Your task to perform on an android device: Search for seafood restaurants on Google Maps Image 0: 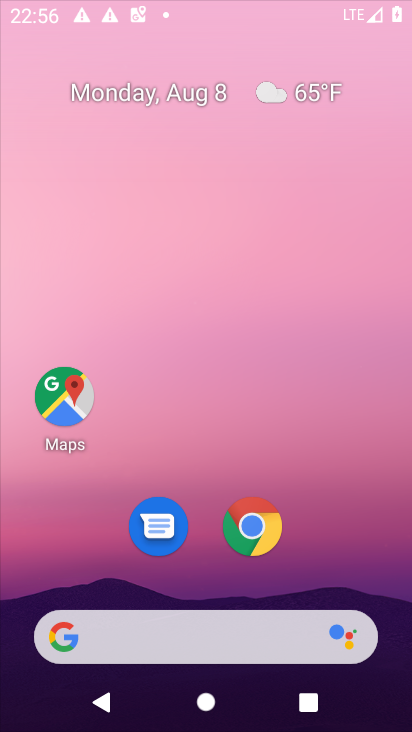
Step 0: click (253, 517)
Your task to perform on an android device: Search for seafood restaurants on Google Maps Image 1: 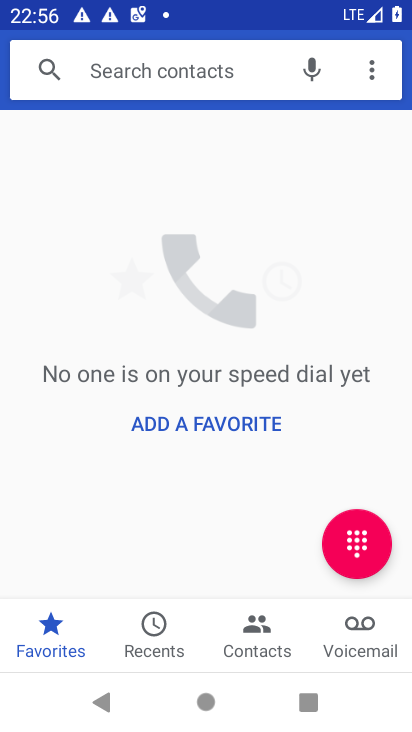
Step 1: press home button
Your task to perform on an android device: Search for seafood restaurants on Google Maps Image 2: 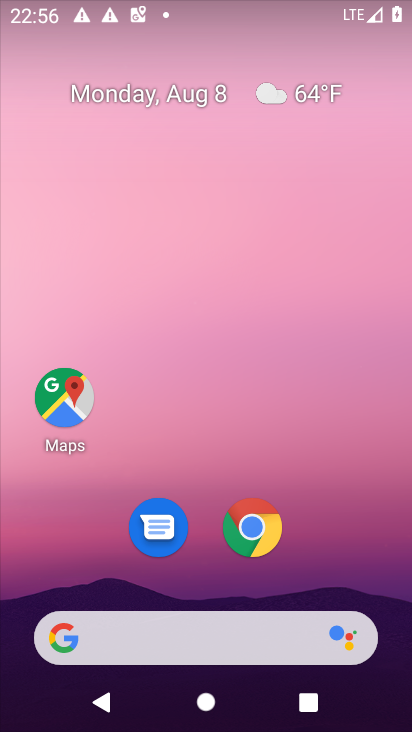
Step 2: click (64, 408)
Your task to perform on an android device: Search for seafood restaurants on Google Maps Image 3: 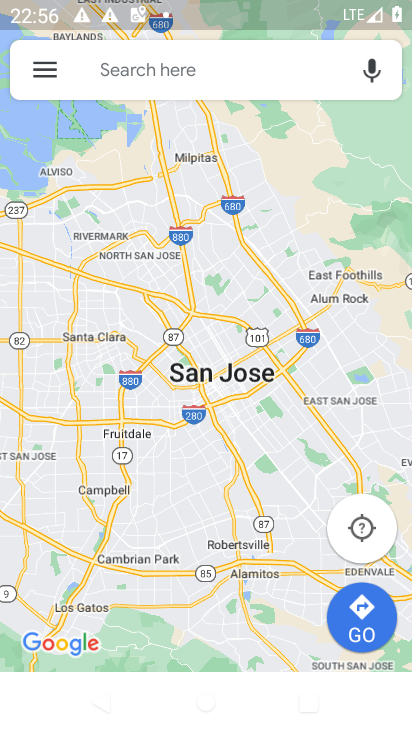
Step 3: click (190, 74)
Your task to perform on an android device: Search for seafood restaurants on Google Maps Image 4: 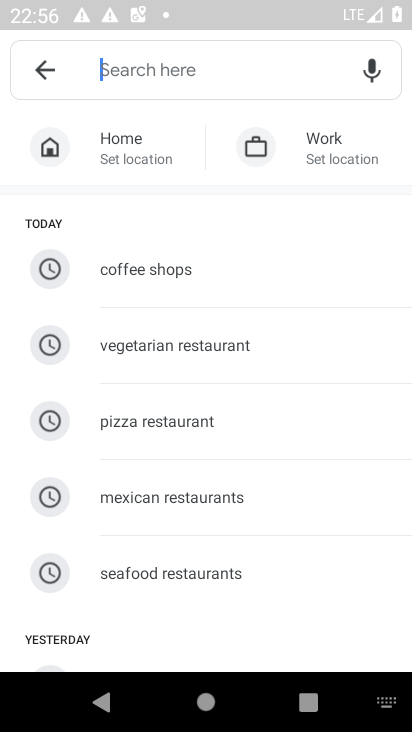
Step 4: type "seafood restaurants"
Your task to perform on an android device: Search for seafood restaurants on Google Maps Image 5: 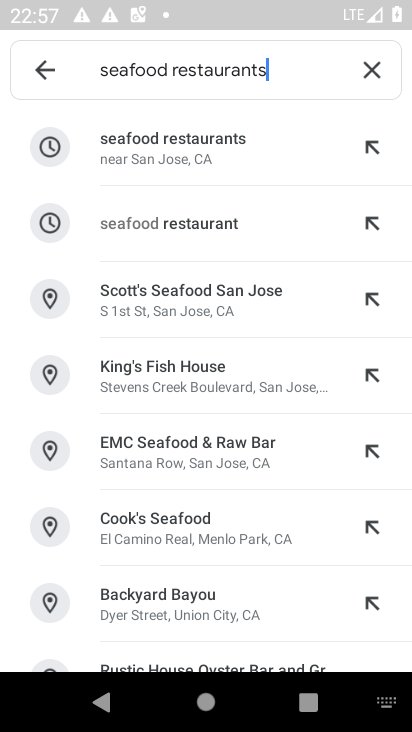
Step 5: click (168, 136)
Your task to perform on an android device: Search for seafood restaurants on Google Maps Image 6: 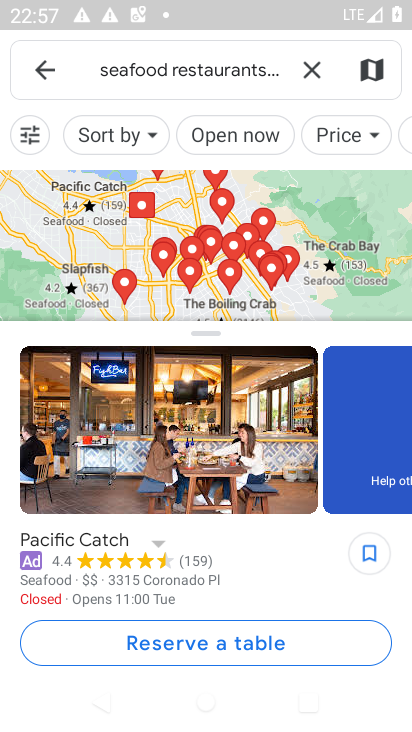
Step 6: task complete